Your task to perform on an android device: turn on airplane mode Image 0: 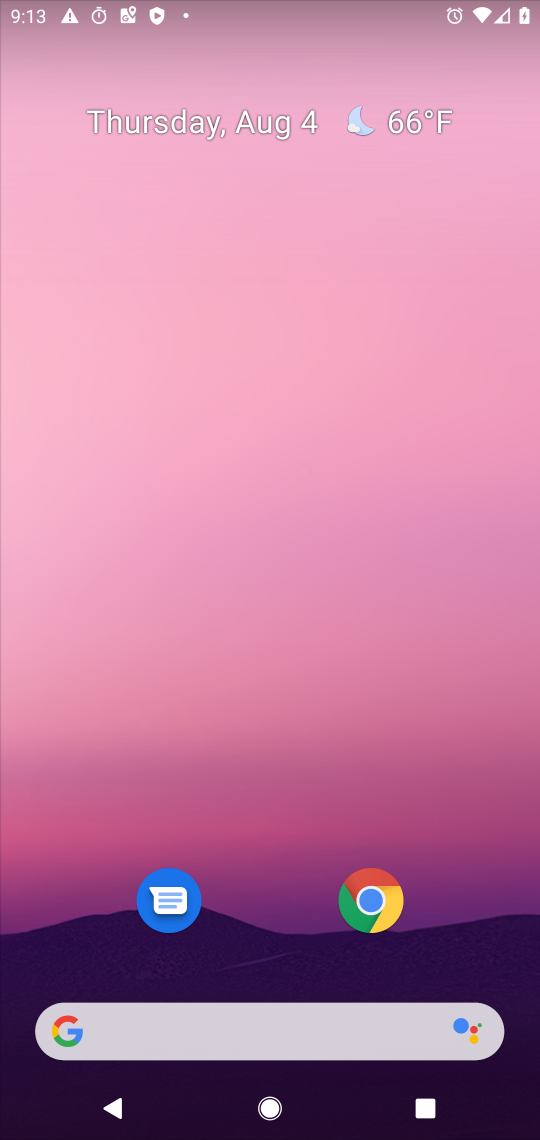
Step 0: drag from (233, 1026) to (272, 173)
Your task to perform on an android device: turn on airplane mode Image 1: 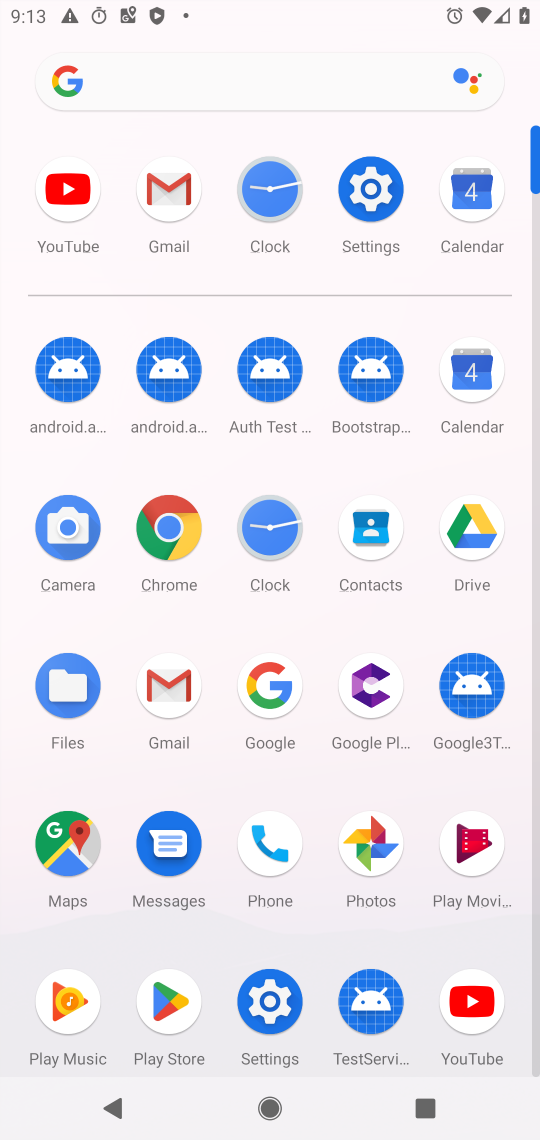
Step 1: click (368, 189)
Your task to perform on an android device: turn on airplane mode Image 2: 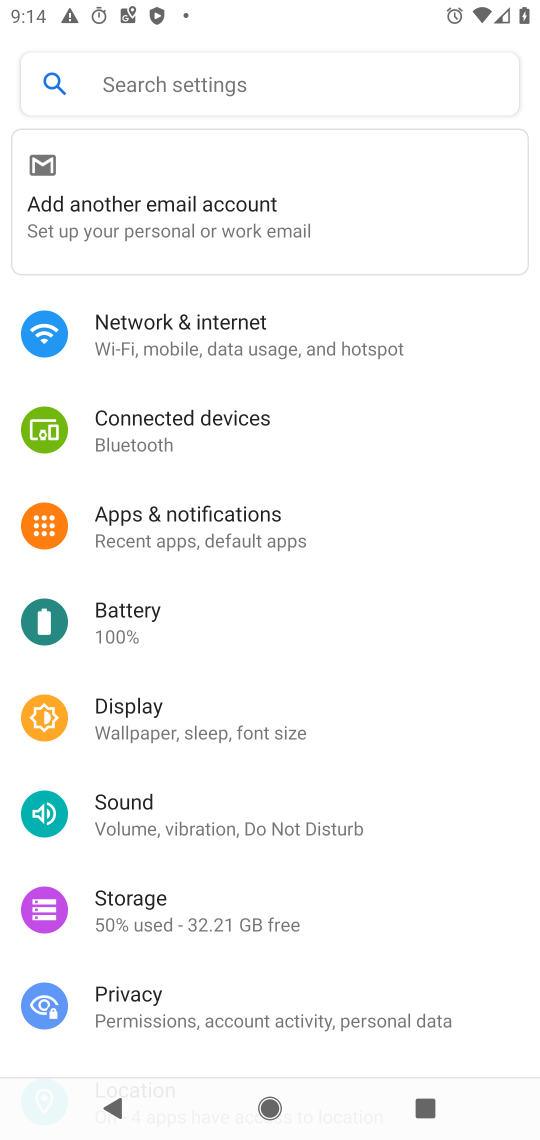
Step 2: click (169, 355)
Your task to perform on an android device: turn on airplane mode Image 3: 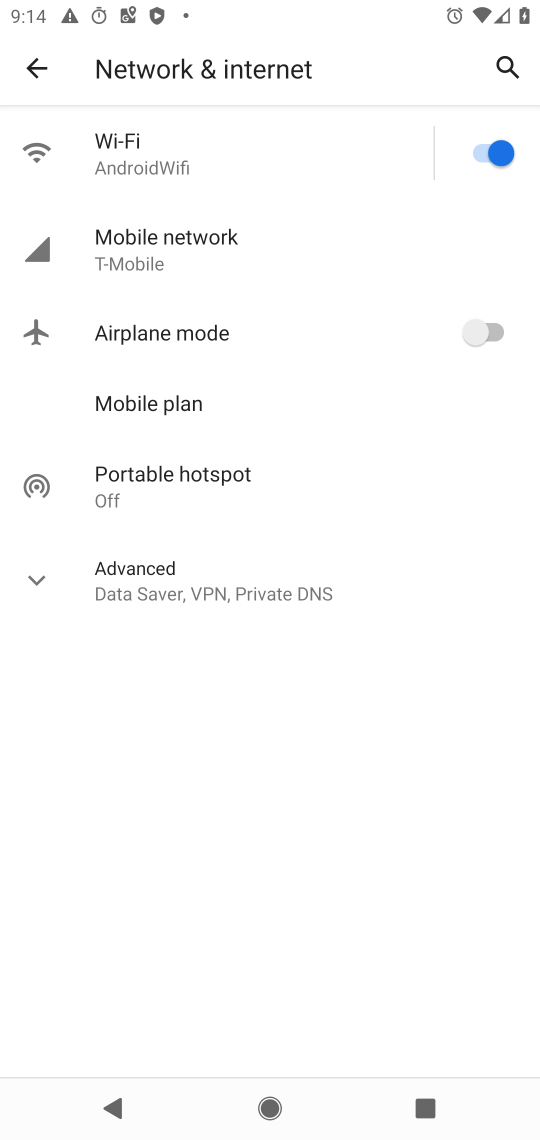
Step 3: click (486, 334)
Your task to perform on an android device: turn on airplane mode Image 4: 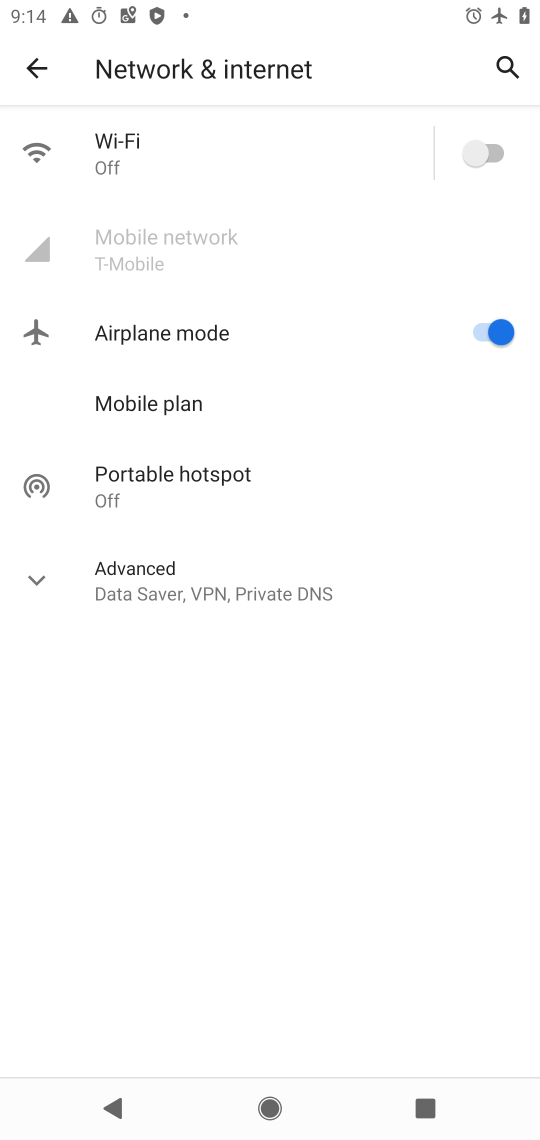
Step 4: task complete